Your task to perform on an android device: What's the weather going to be this weekend? Image 0: 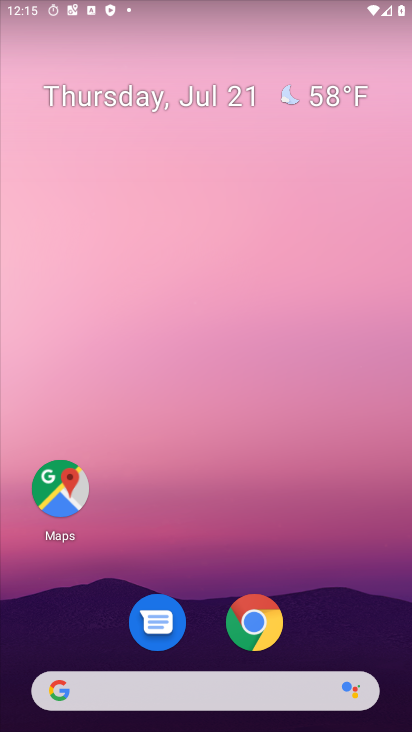
Step 0: click (109, 688)
Your task to perform on an android device: What's the weather going to be this weekend? Image 1: 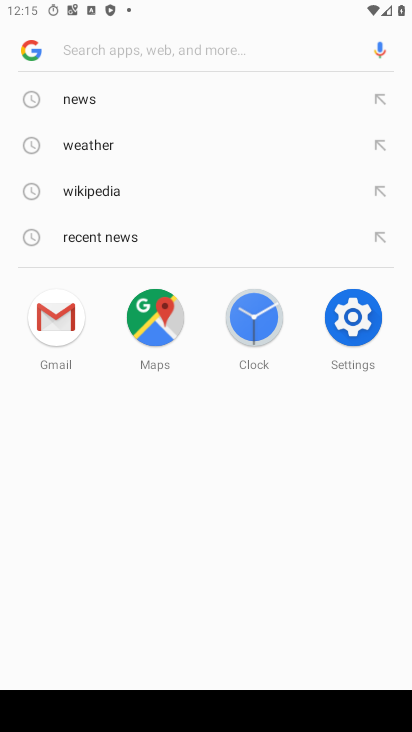
Step 1: type "What's the weather going to be this weekend?"
Your task to perform on an android device: What's the weather going to be this weekend? Image 2: 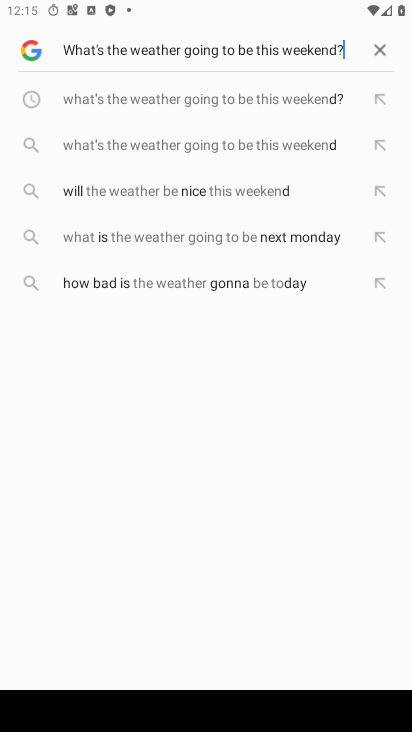
Step 2: type ""
Your task to perform on an android device: What's the weather going to be this weekend? Image 3: 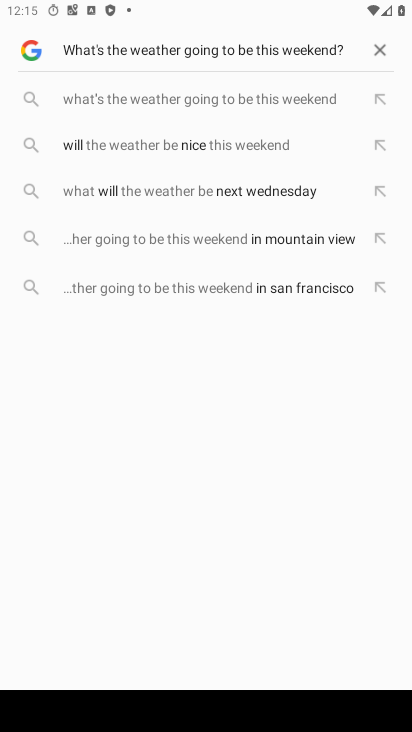
Step 3: type ""
Your task to perform on an android device: What's the weather going to be this weekend? Image 4: 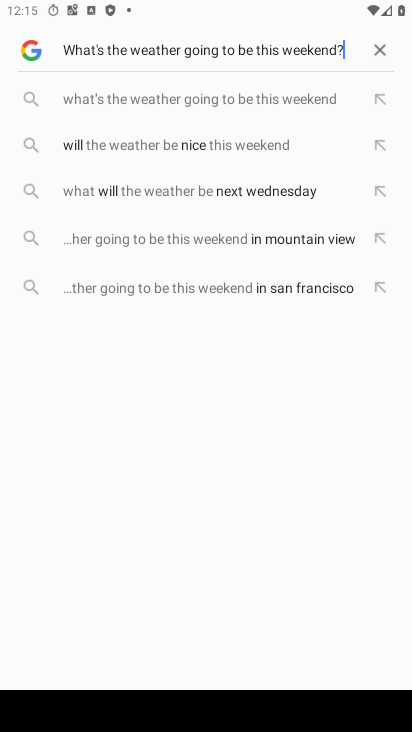
Step 4: type ""
Your task to perform on an android device: What's the weather going to be this weekend? Image 5: 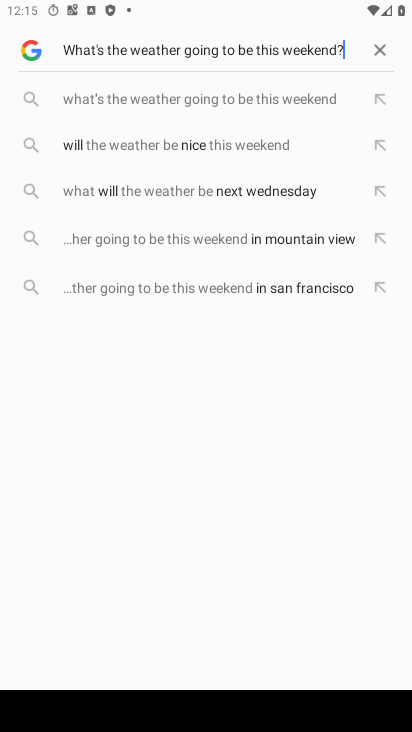
Step 5: task complete